Your task to perform on an android device: see creations saved in the google photos Image 0: 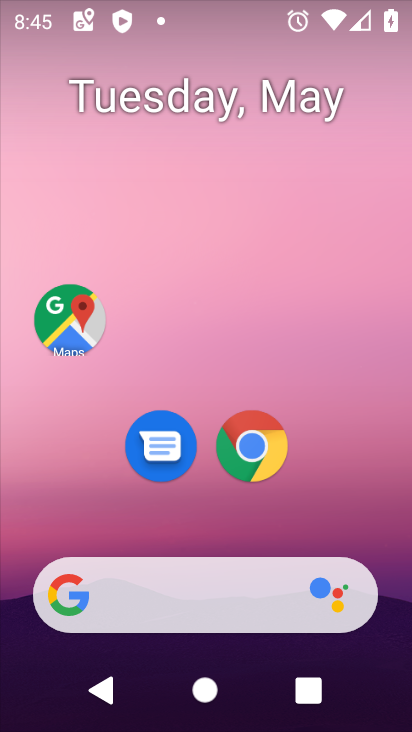
Step 0: drag from (363, 529) to (327, 6)
Your task to perform on an android device: see creations saved in the google photos Image 1: 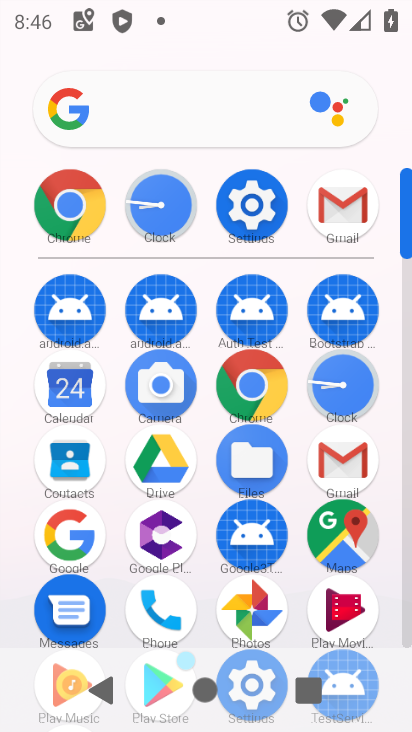
Step 1: click (246, 617)
Your task to perform on an android device: see creations saved in the google photos Image 2: 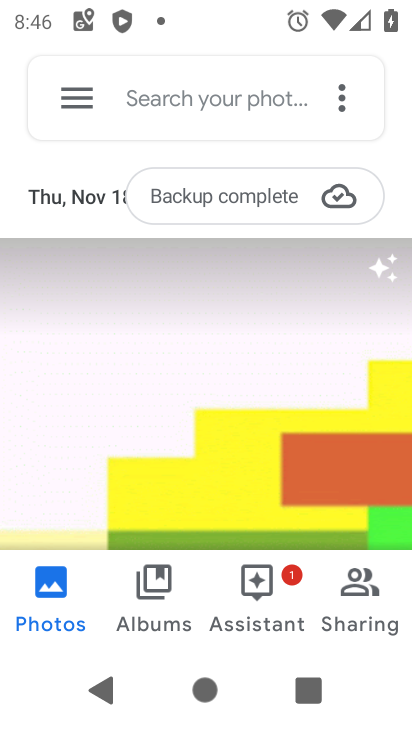
Step 2: click (139, 103)
Your task to perform on an android device: see creations saved in the google photos Image 3: 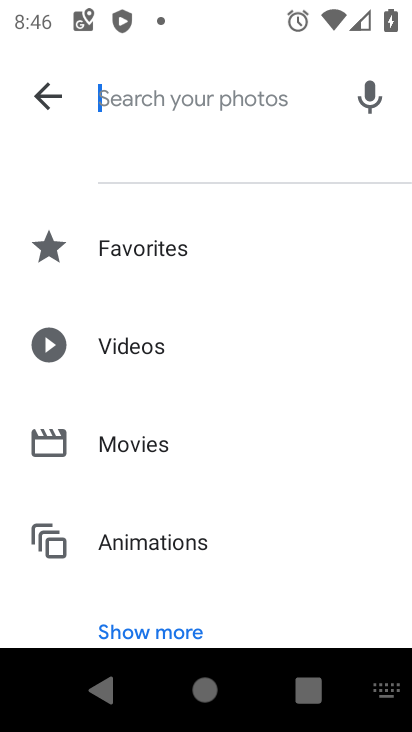
Step 3: drag from (281, 564) to (267, 301)
Your task to perform on an android device: see creations saved in the google photos Image 4: 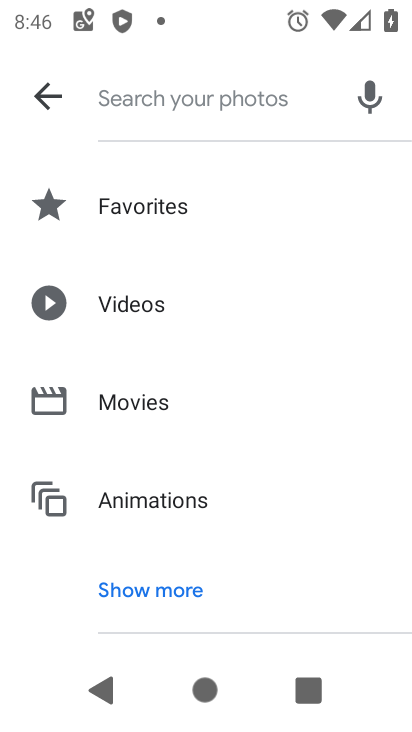
Step 4: click (173, 589)
Your task to perform on an android device: see creations saved in the google photos Image 5: 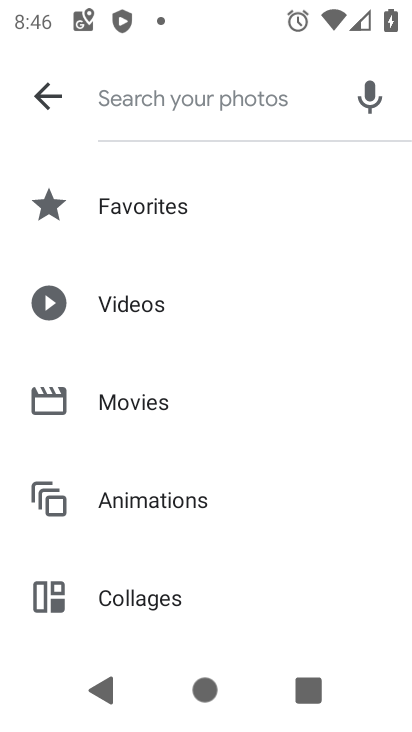
Step 5: drag from (231, 592) to (248, 231)
Your task to perform on an android device: see creations saved in the google photos Image 6: 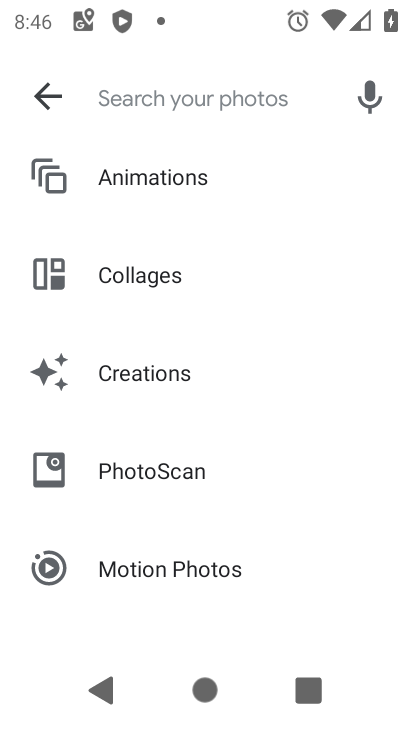
Step 6: click (137, 379)
Your task to perform on an android device: see creations saved in the google photos Image 7: 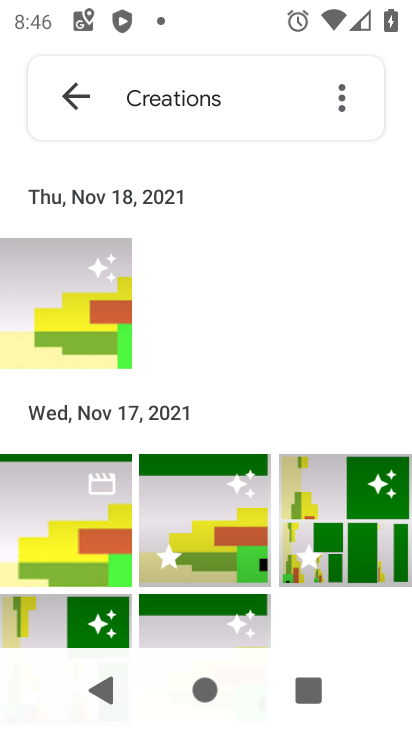
Step 7: task complete